Your task to perform on an android device: Open the calendar app, open the side menu, and click the "Day" option Image 0: 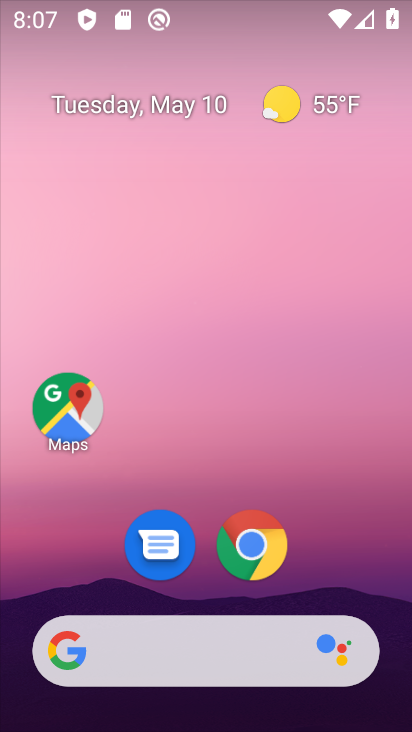
Step 0: drag from (199, 589) to (249, 228)
Your task to perform on an android device: Open the calendar app, open the side menu, and click the "Day" option Image 1: 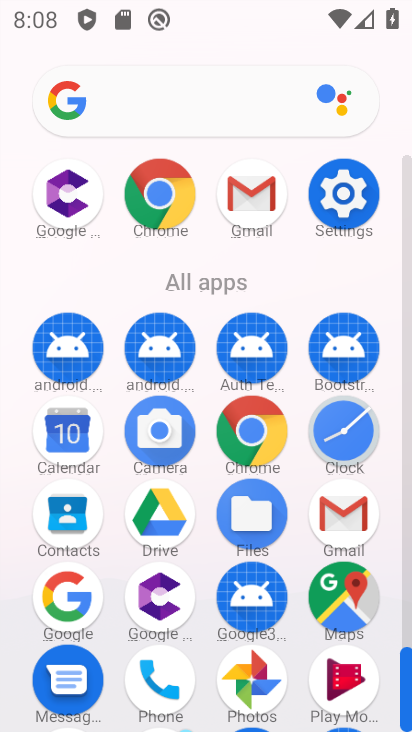
Step 1: click (83, 445)
Your task to perform on an android device: Open the calendar app, open the side menu, and click the "Day" option Image 2: 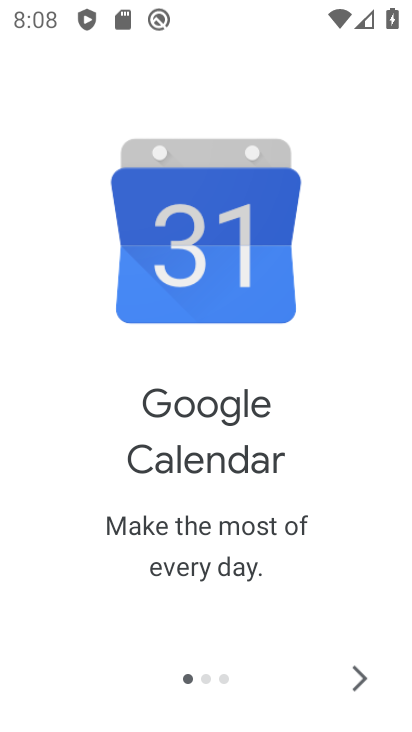
Step 2: click (347, 673)
Your task to perform on an android device: Open the calendar app, open the side menu, and click the "Day" option Image 3: 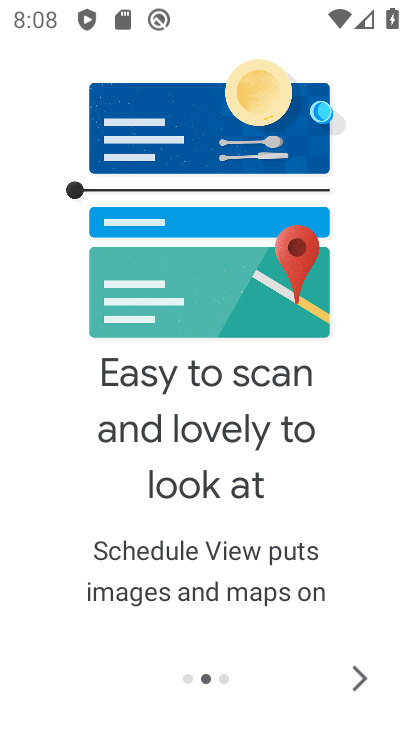
Step 3: click (348, 673)
Your task to perform on an android device: Open the calendar app, open the side menu, and click the "Day" option Image 4: 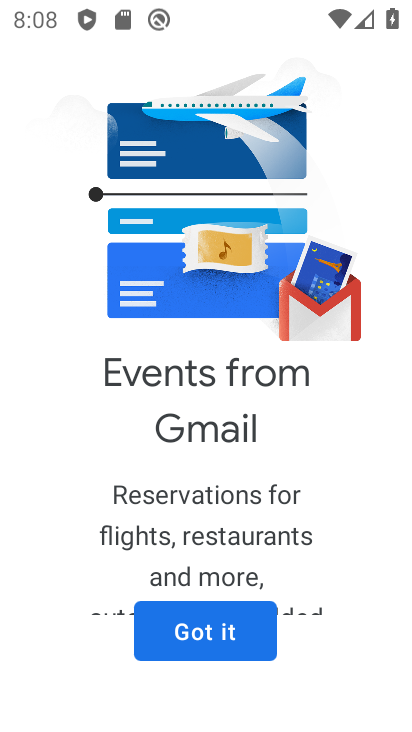
Step 4: click (260, 628)
Your task to perform on an android device: Open the calendar app, open the side menu, and click the "Day" option Image 5: 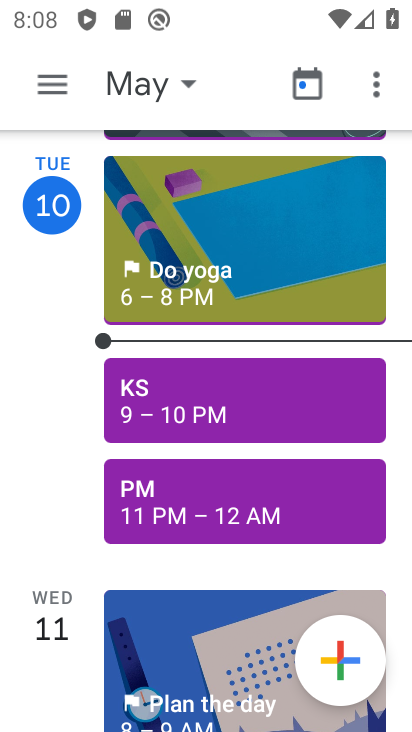
Step 5: click (56, 70)
Your task to perform on an android device: Open the calendar app, open the side menu, and click the "Day" option Image 6: 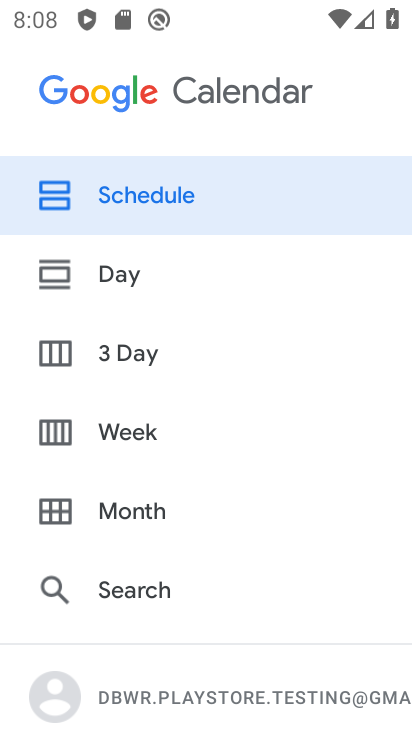
Step 6: click (114, 249)
Your task to perform on an android device: Open the calendar app, open the side menu, and click the "Day" option Image 7: 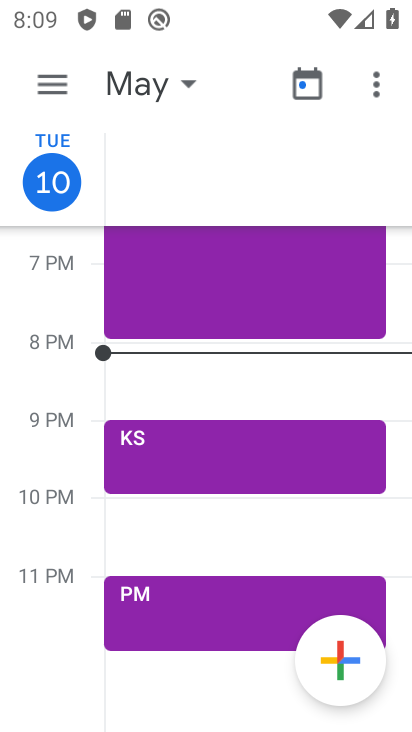
Step 7: task complete